Your task to perform on an android device: turn off location Image 0: 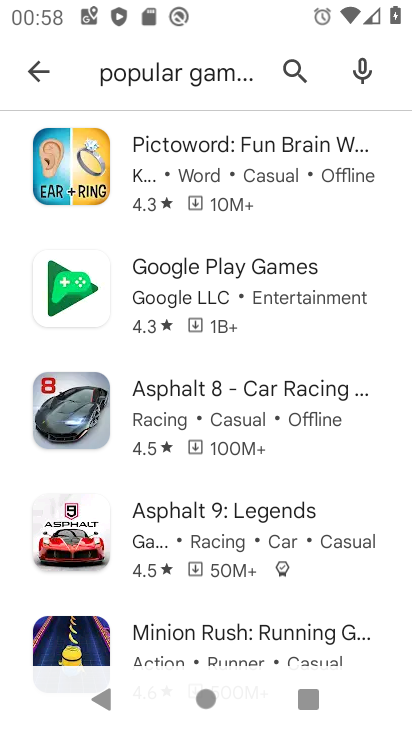
Step 0: press home button
Your task to perform on an android device: turn off location Image 1: 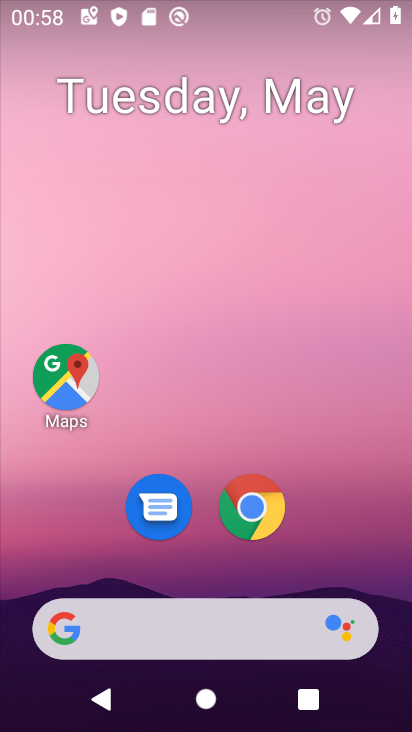
Step 1: drag from (213, 574) to (213, 225)
Your task to perform on an android device: turn off location Image 2: 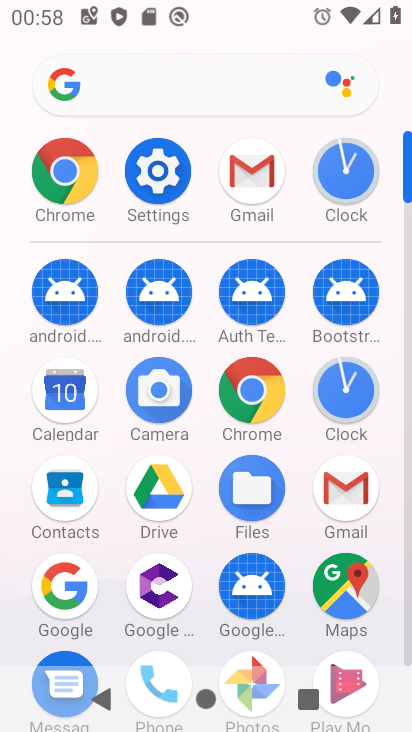
Step 2: click (172, 181)
Your task to perform on an android device: turn off location Image 3: 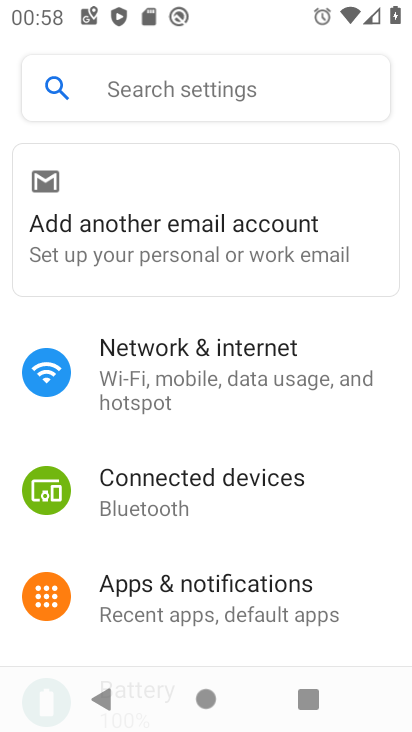
Step 3: drag from (151, 615) to (146, 198)
Your task to perform on an android device: turn off location Image 4: 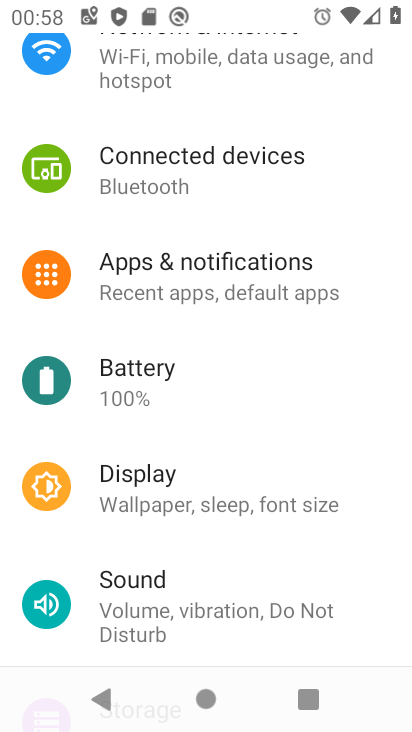
Step 4: drag from (188, 638) to (188, 224)
Your task to perform on an android device: turn off location Image 5: 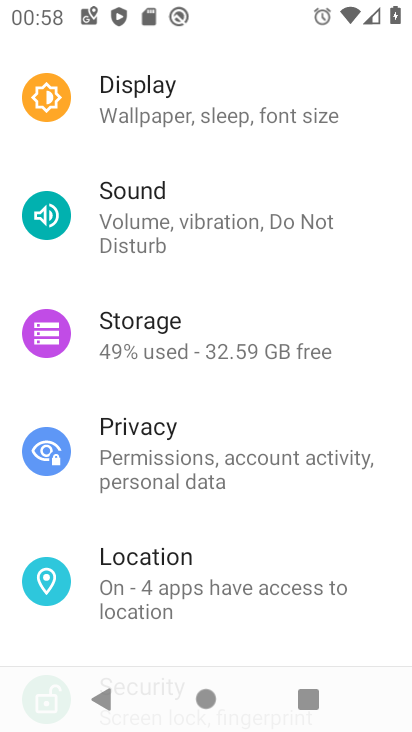
Step 5: click (155, 578)
Your task to perform on an android device: turn off location Image 6: 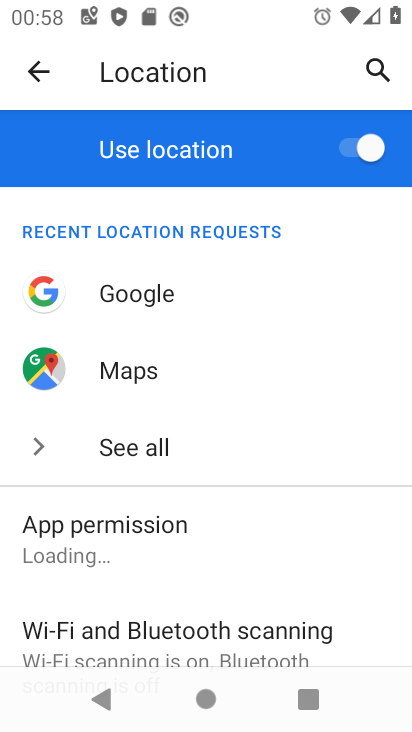
Step 6: click (349, 141)
Your task to perform on an android device: turn off location Image 7: 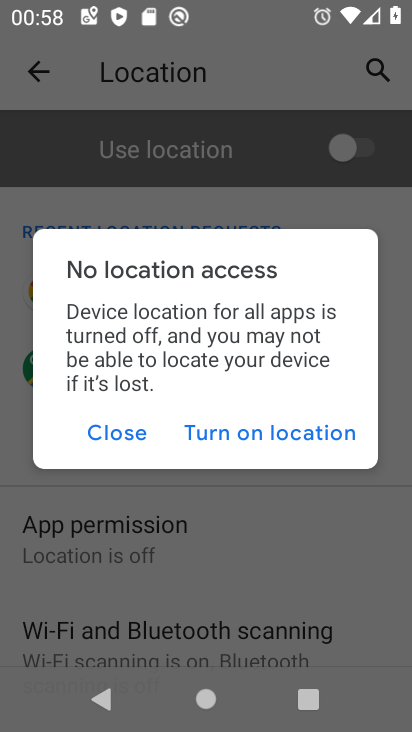
Step 7: click (94, 439)
Your task to perform on an android device: turn off location Image 8: 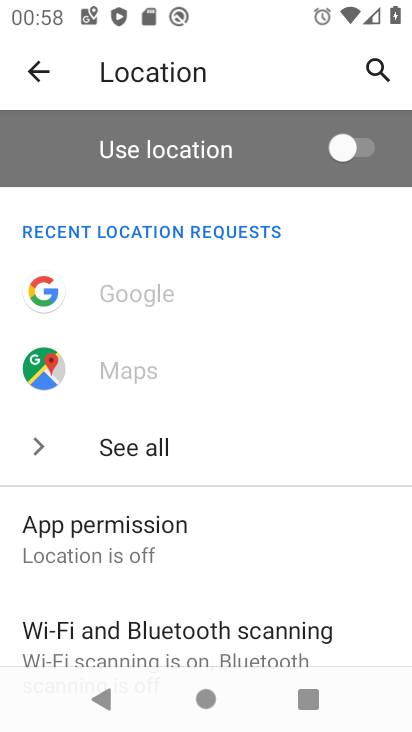
Step 8: task complete